Your task to perform on an android device: read, delete, or share a saved page in the chrome app Image 0: 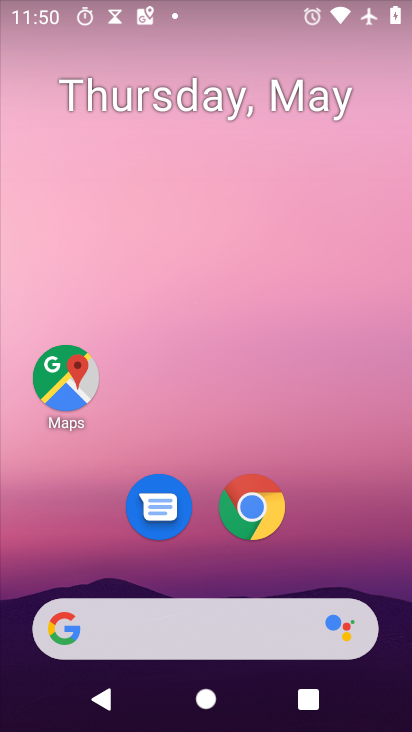
Step 0: drag from (356, 528) to (320, 3)
Your task to perform on an android device: read, delete, or share a saved page in the chrome app Image 1: 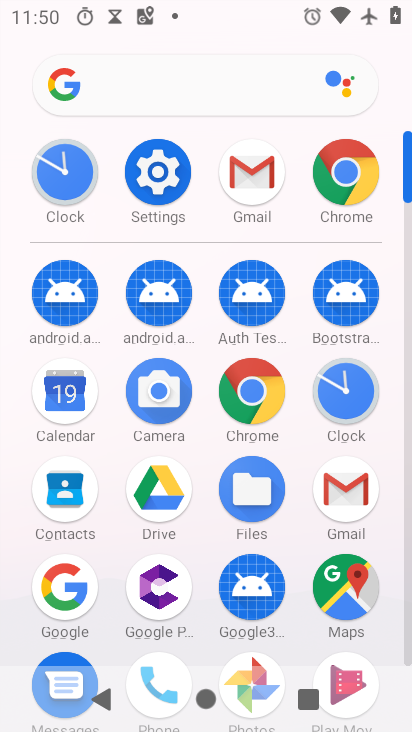
Step 1: drag from (2, 588) to (17, 216)
Your task to perform on an android device: read, delete, or share a saved page in the chrome app Image 2: 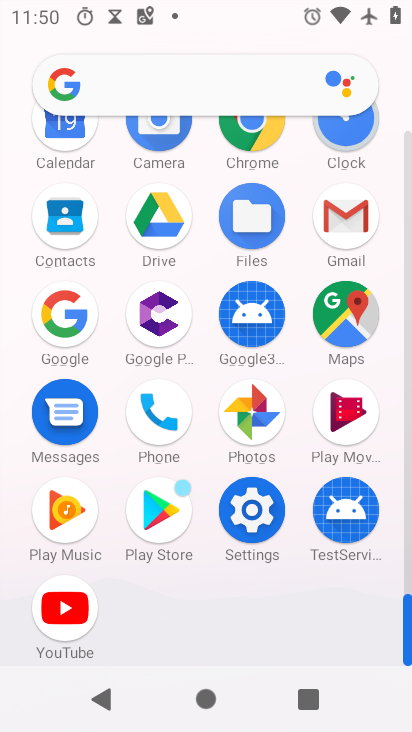
Step 2: click (243, 126)
Your task to perform on an android device: read, delete, or share a saved page in the chrome app Image 3: 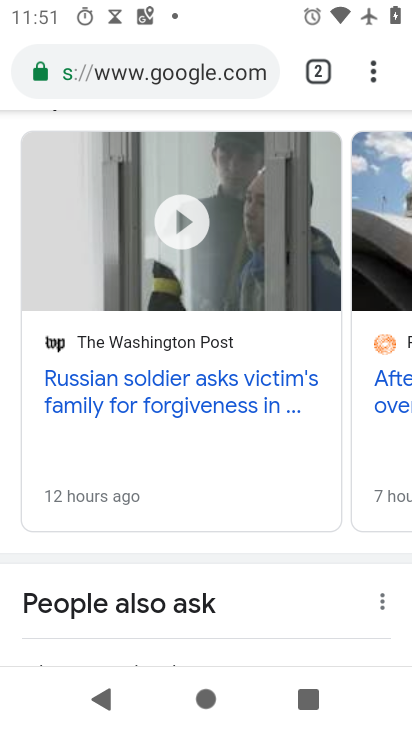
Step 3: task complete